Your task to perform on an android device: Open privacy settings Image 0: 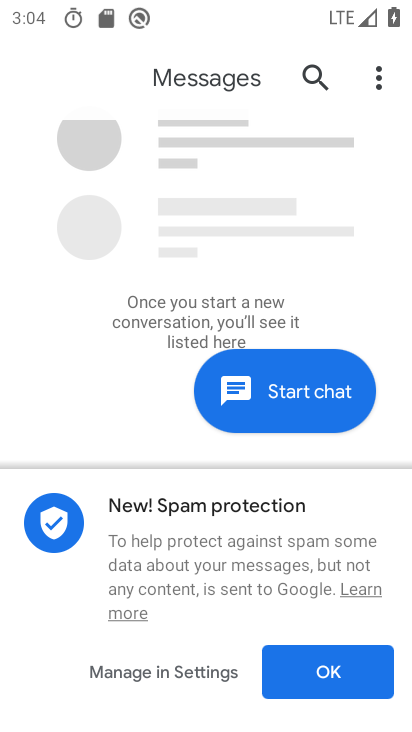
Step 0: press home button
Your task to perform on an android device: Open privacy settings Image 1: 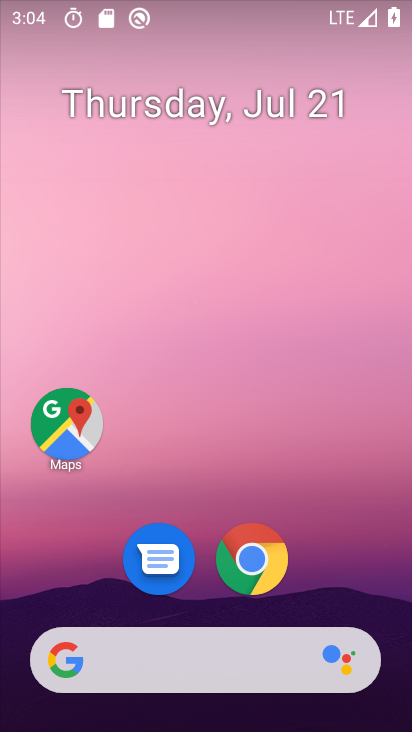
Step 1: drag from (396, 587) to (395, 151)
Your task to perform on an android device: Open privacy settings Image 2: 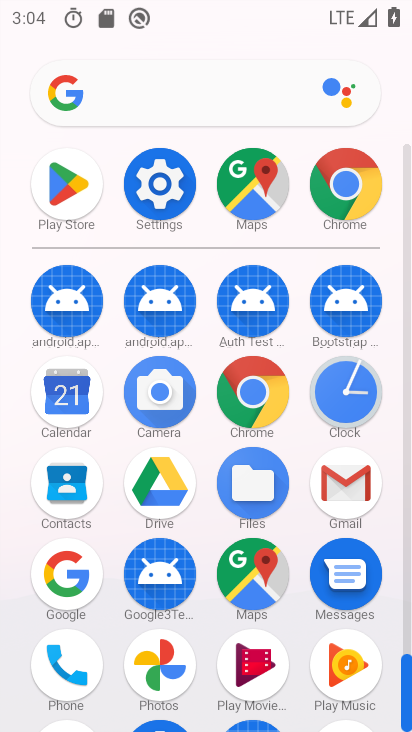
Step 2: click (168, 198)
Your task to perform on an android device: Open privacy settings Image 3: 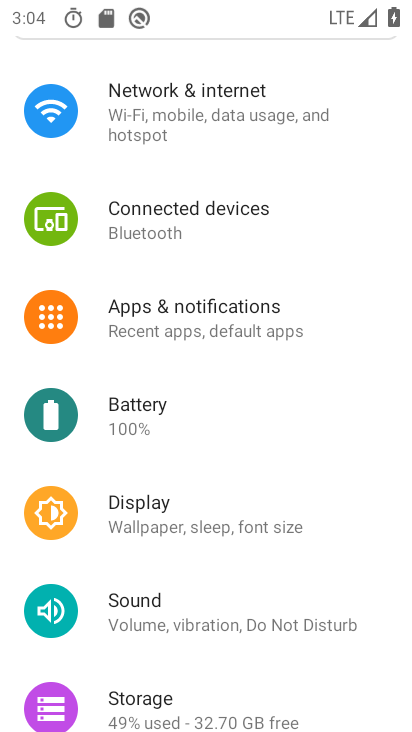
Step 3: drag from (336, 220) to (348, 352)
Your task to perform on an android device: Open privacy settings Image 4: 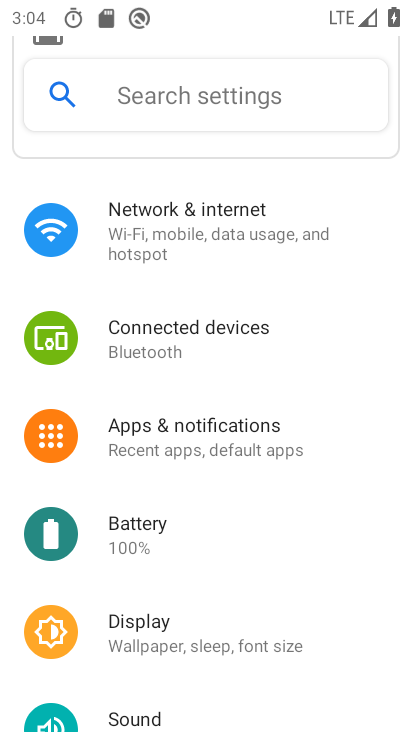
Step 4: drag from (330, 478) to (339, 403)
Your task to perform on an android device: Open privacy settings Image 5: 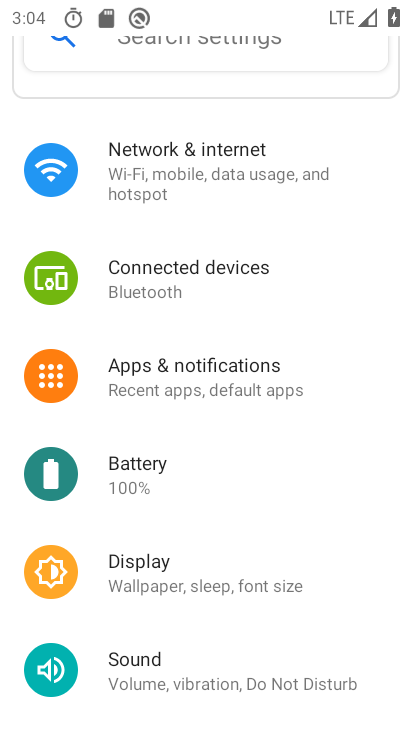
Step 5: drag from (336, 497) to (328, 389)
Your task to perform on an android device: Open privacy settings Image 6: 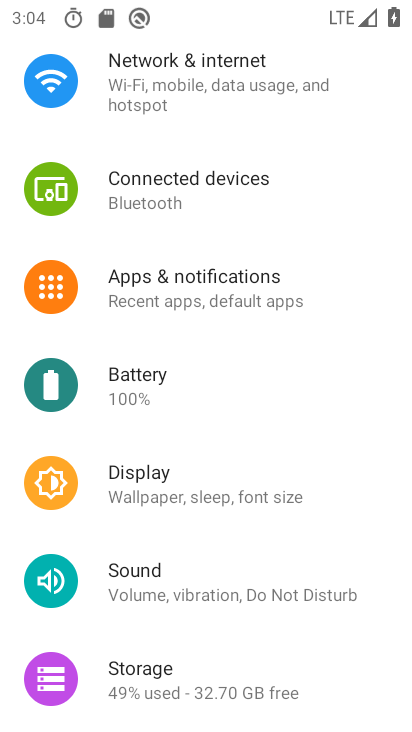
Step 6: drag from (328, 508) to (330, 425)
Your task to perform on an android device: Open privacy settings Image 7: 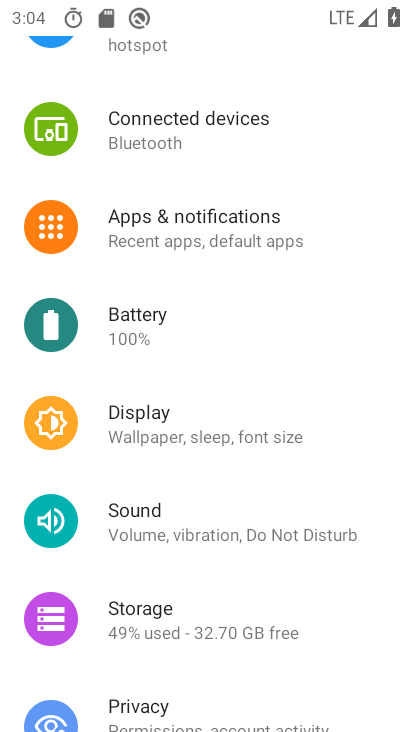
Step 7: drag from (330, 517) to (332, 448)
Your task to perform on an android device: Open privacy settings Image 8: 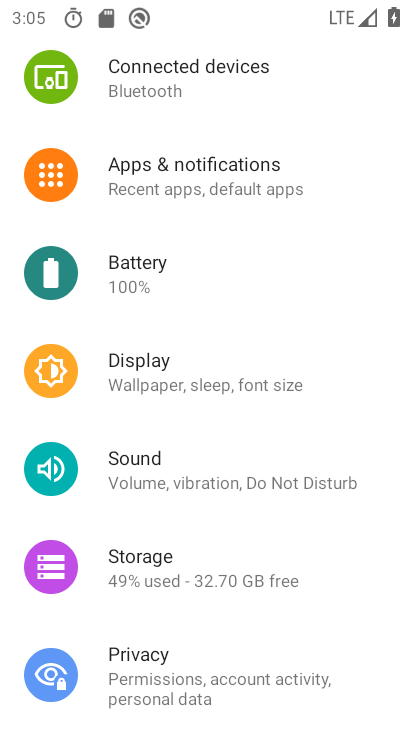
Step 8: drag from (332, 526) to (335, 466)
Your task to perform on an android device: Open privacy settings Image 9: 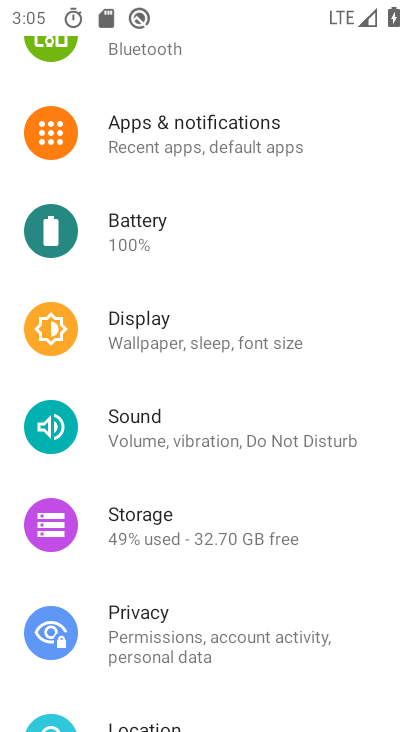
Step 9: drag from (335, 542) to (336, 473)
Your task to perform on an android device: Open privacy settings Image 10: 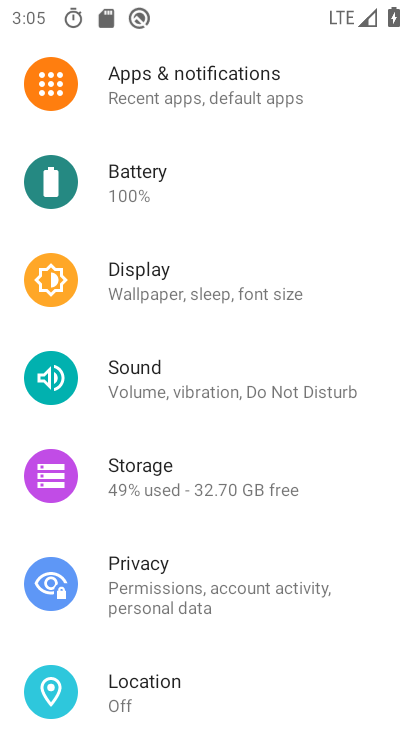
Step 10: drag from (337, 536) to (337, 481)
Your task to perform on an android device: Open privacy settings Image 11: 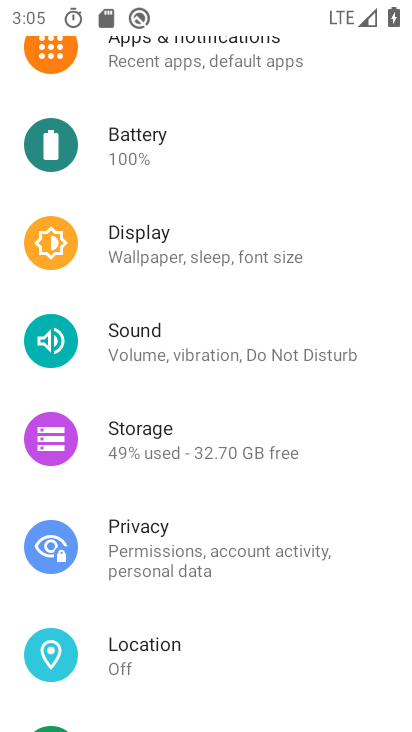
Step 11: drag from (329, 617) to (338, 517)
Your task to perform on an android device: Open privacy settings Image 12: 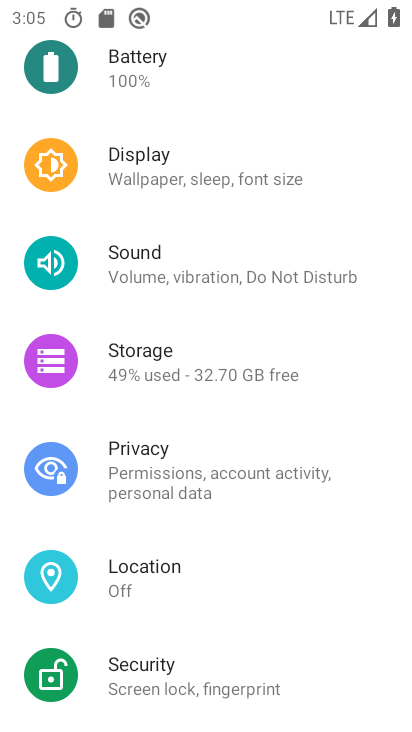
Step 12: drag from (346, 597) to (350, 498)
Your task to perform on an android device: Open privacy settings Image 13: 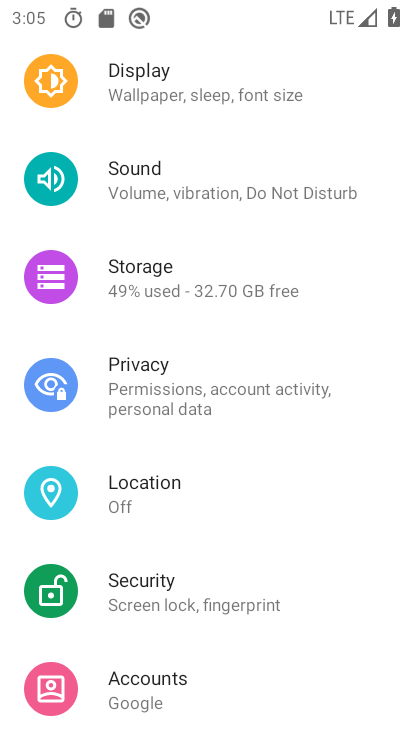
Step 13: click (323, 395)
Your task to perform on an android device: Open privacy settings Image 14: 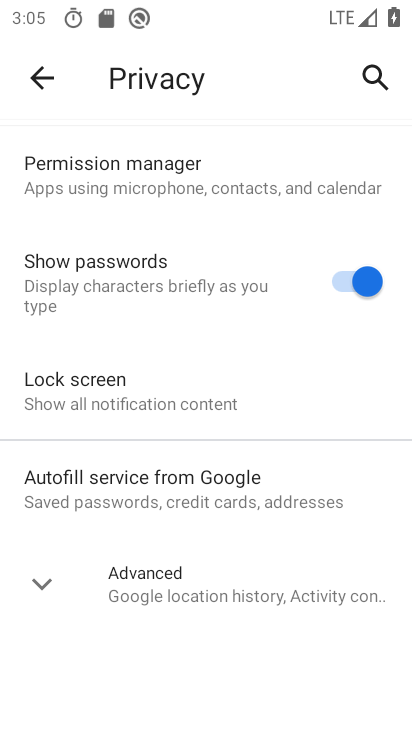
Step 14: task complete